Your task to perform on an android device: Go to settings Image 0: 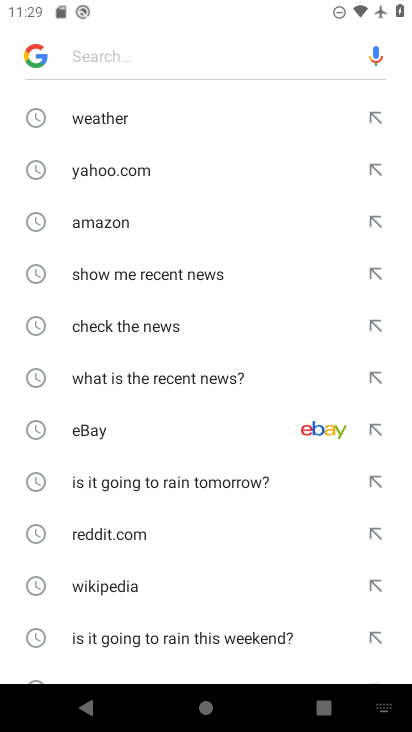
Step 0: press home button
Your task to perform on an android device: Go to settings Image 1: 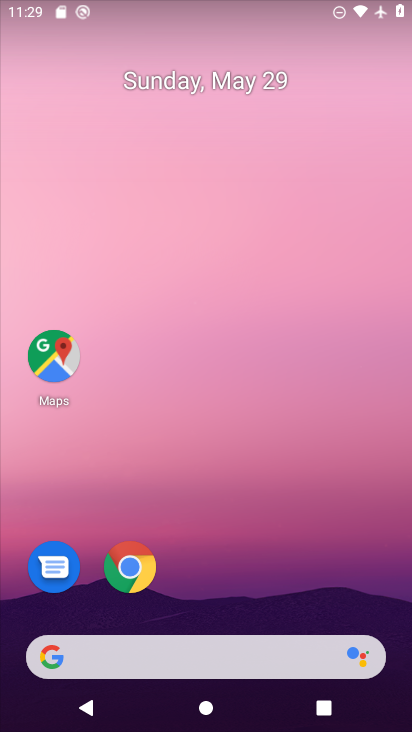
Step 1: drag from (393, 598) to (313, 30)
Your task to perform on an android device: Go to settings Image 2: 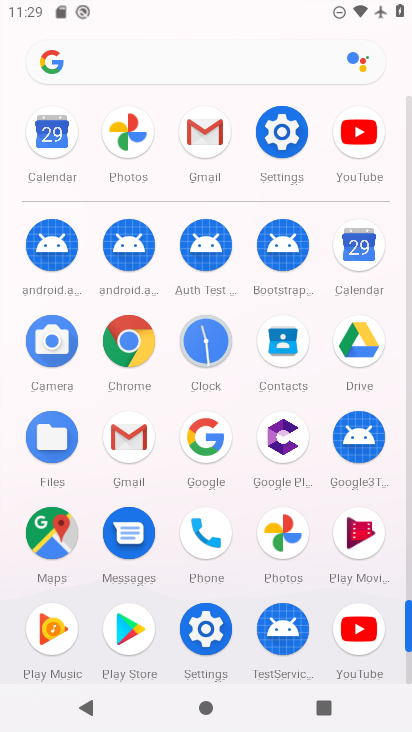
Step 2: click (207, 630)
Your task to perform on an android device: Go to settings Image 3: 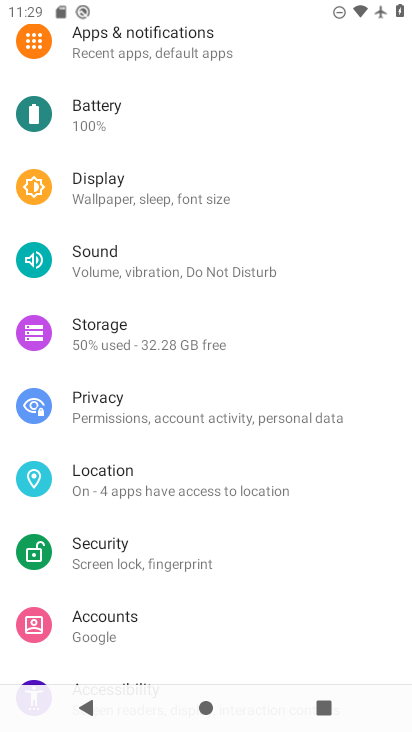
Step 3: task complete